Your task to perform on an android device: toggle sleep mode Image 0: 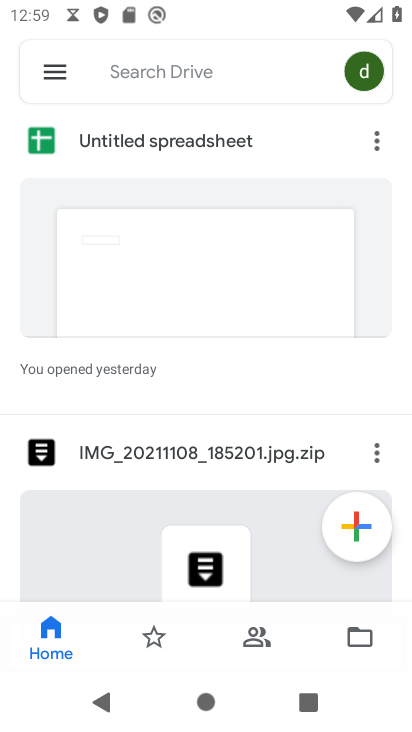
Step 0: press home button
Your task to perform on an android device: toggle sleep mode Image 1: 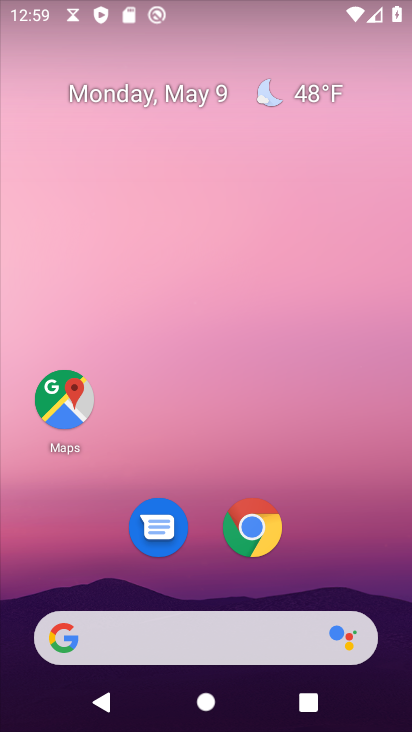
Step 1: drag from (166, 577) to (188, 120)
Your task to perform on an android device: toggle sleep mode Image 2: 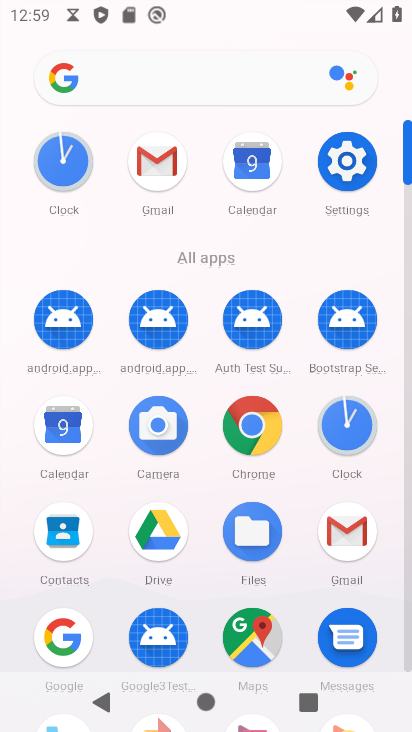
Step 2: click (355, 179)
Your task to perform on an android device: toggle sleep mode Image 3: 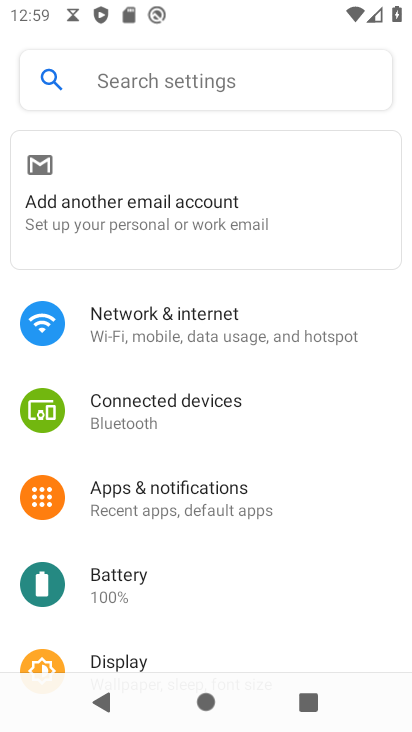
Step 3: click (188, 85)
Your task to perform on an android device: toggle sleep mode Image 4: 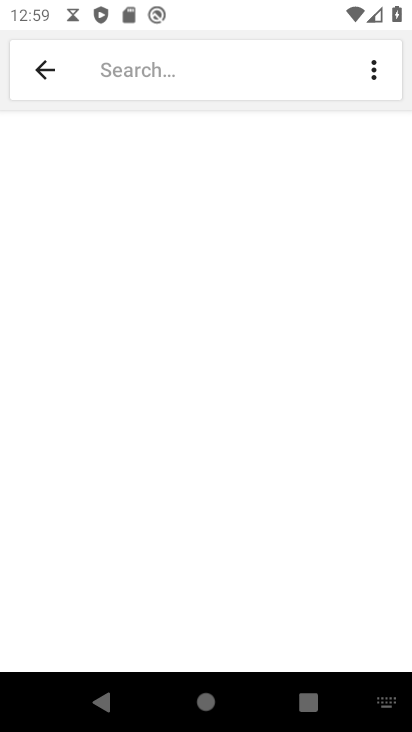
Step 4: type "sleep mode"
Your task to perform on an android device: toggle sleep mode Image 5: 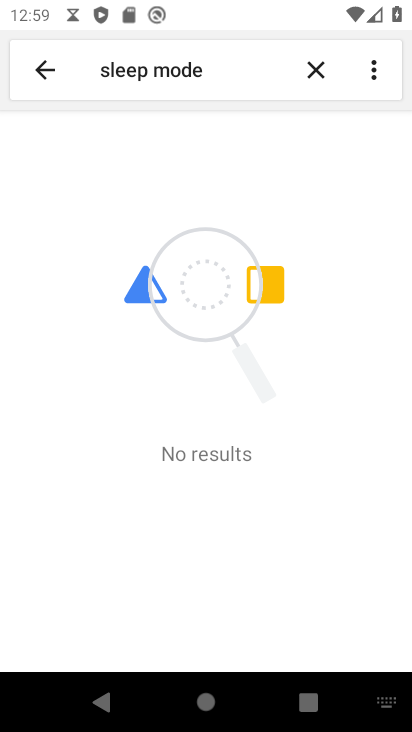
Step 5: task complete